Your task to perform on an android device: change the clock style Image 0: 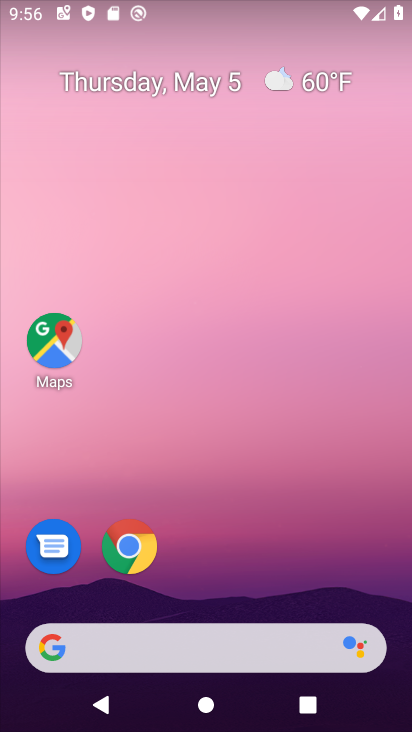
Step 0: drag from (262, 588) to (354, 5)
Your task to perform on an android device: change the clock style Image 1: 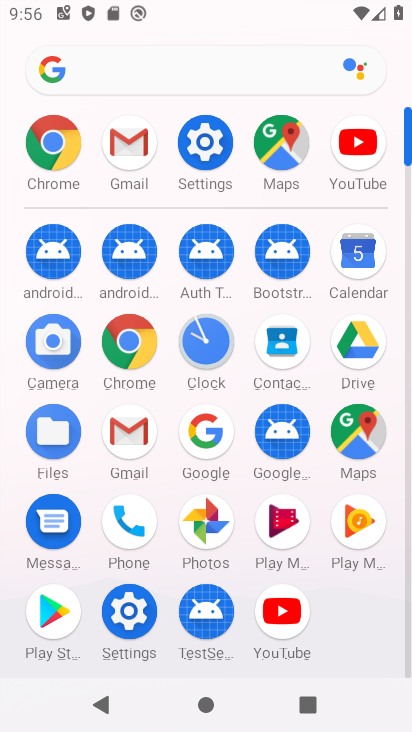
Step 1: click (200, 358)
Your task to perform on an android device: change the clock style Image 2: 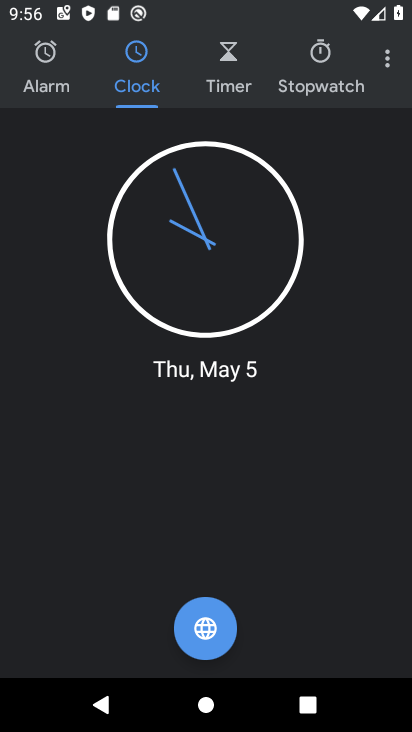
Step 2: click (385, 71)
Your task to perform on an android device: change the clock style Image 3: 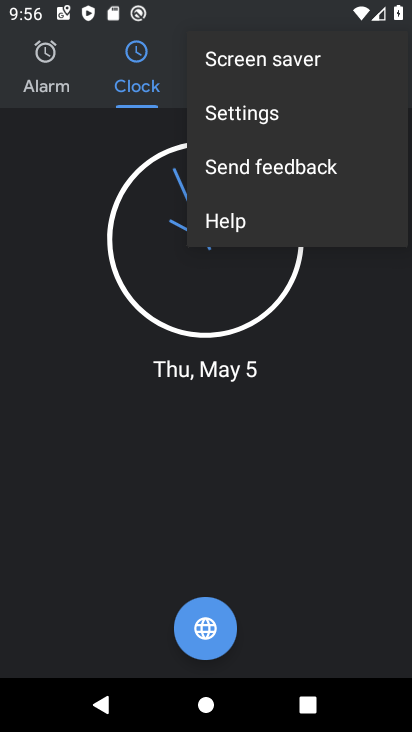
Step 3: click (346, 116)
Your task to perform on an android device: change the clock style Image 4: 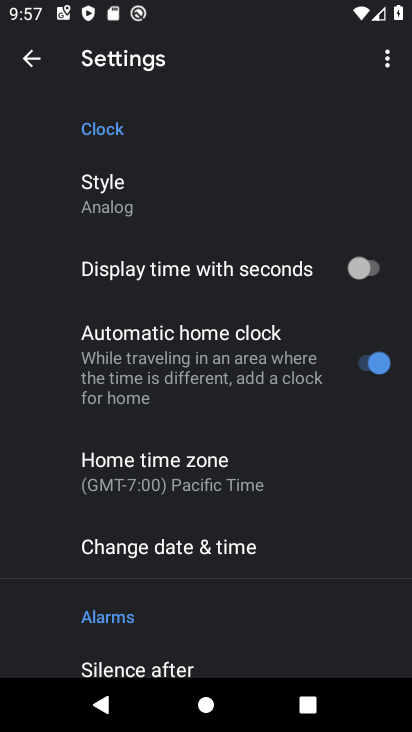
Step 4: click (121, 196)
Your task to perform on an android device: change the clock style Image 5: 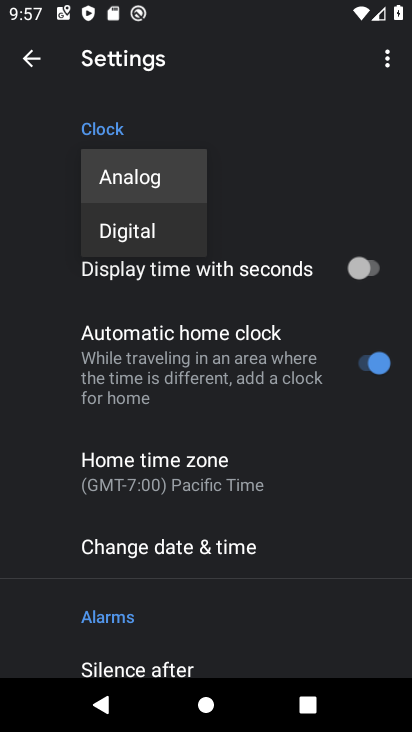
Step 5: click (122, 219)
Your task to perform on an android device: change the clock style Image 6: 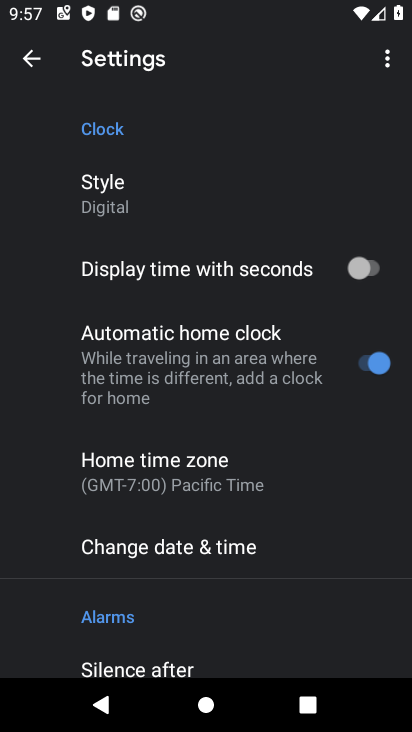
Step 6: task complete